Your task to perform on an android device: turn smart compose on in the gmail app Image 0: 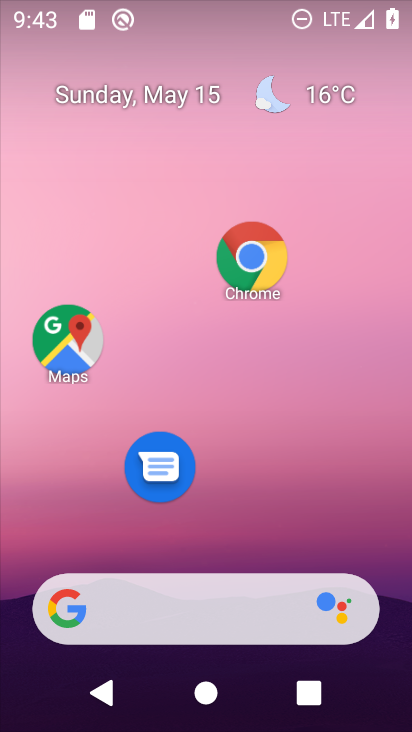
Step 0: drag from (208, 552) to (178, 86)
Your task to perform on an android device: turn smart compose on in the gmail app Image 1: 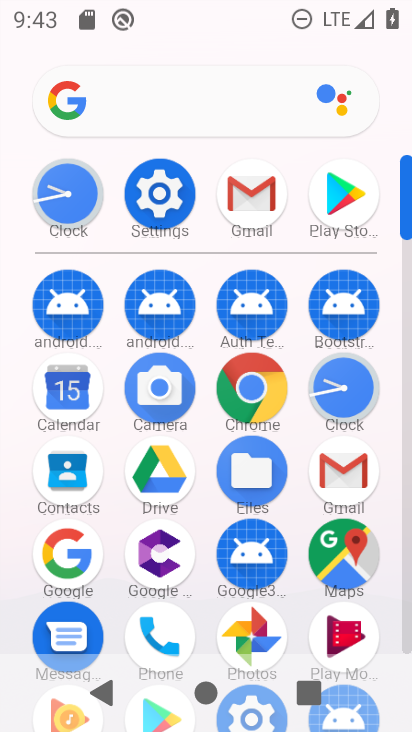
Step 1: click (256, 193)
Your task to perform on an android device: turn smart compose on in the gmail app Image 2: 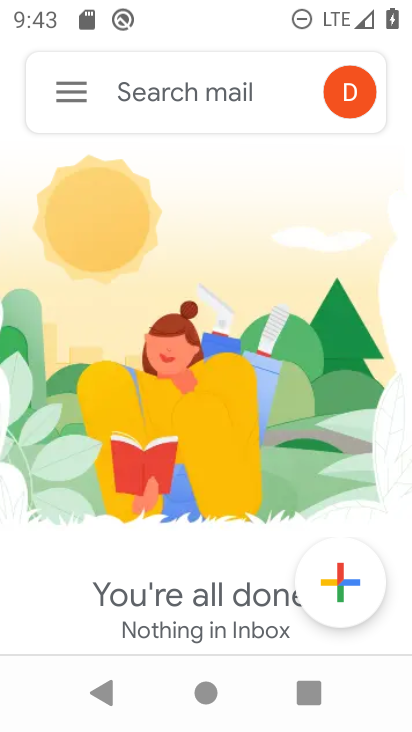
Step 2: click (89, 83)
Your task to perform on an android device: turn smart compose on in the gmail app Image 3: 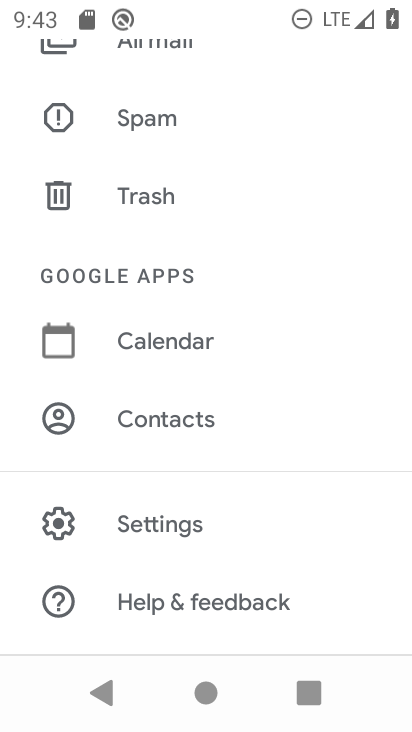
Step 3: click (161, 521)
Your task to perform on an android device: turn smart compose on in the gmail app Image 4: 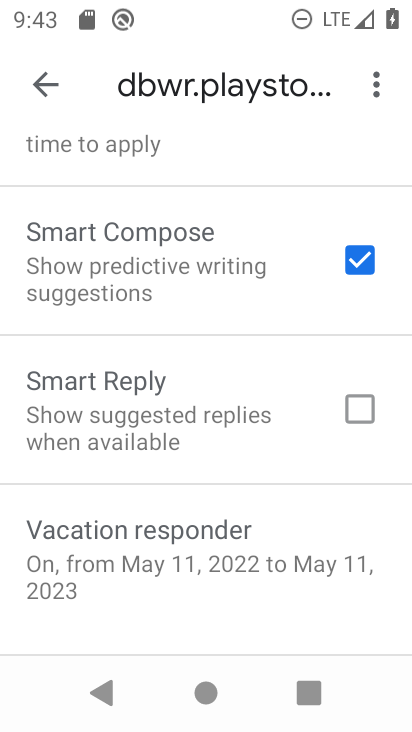
Step 4: task complete